Your task to perform on an android device: Open calendar and show me the fourth week of next month Image 0: 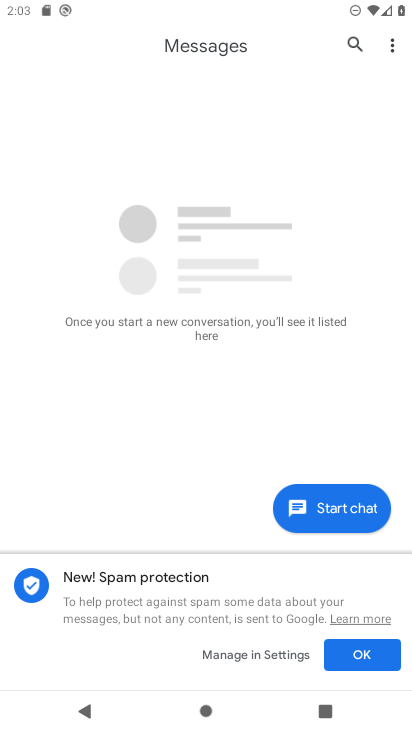
Step 0: drag from (268, 615) to (386, 547)
Your task to perform on an android device: Open calendar and show me the fourth week of next month Image 1: 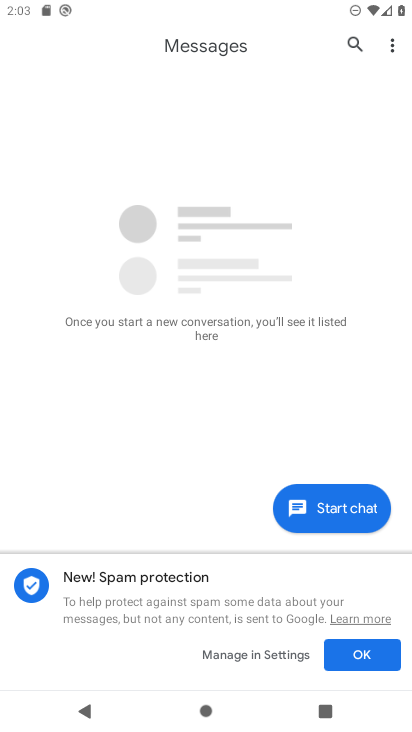
Step 1: press home button
Your task to perform on an android device: Open calendar and show me the fourth week of next month Image 2: 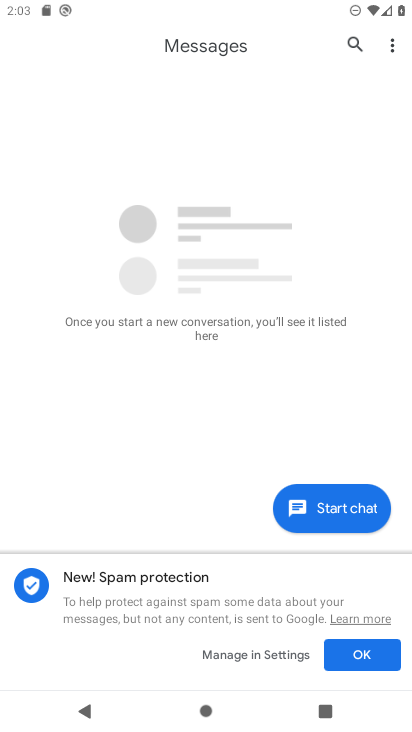
Step 2: drag from (386, 547) to (342, 299)
Your task to perform on an android device: Open calendar and show me the fourth week of next month Image 3: 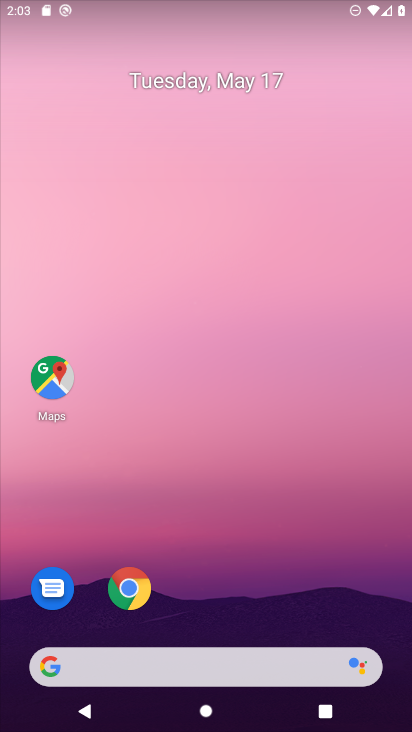
Step 3: drag from (178, 589) to (110, 87)
Your task to perform on an android device: Open calendar and show me the fourth week of next month Image 4: 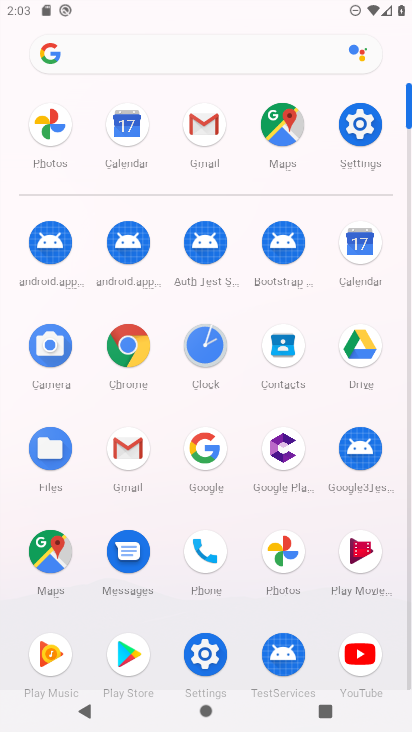
Step 4: click (358, 244)
Your task to perform on an android device: Open calendar and show me the fourth week of next month Image 5: 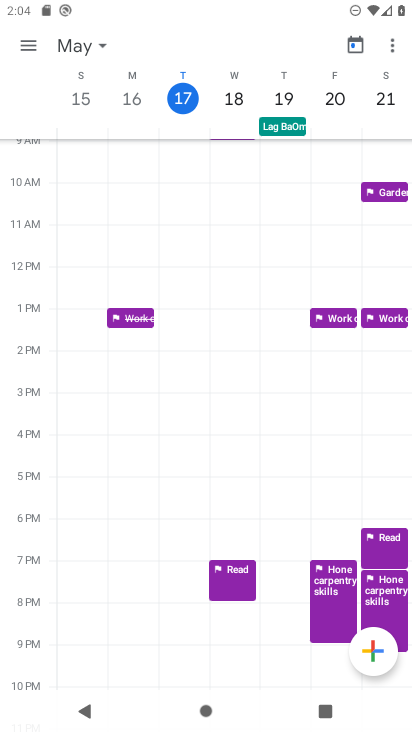
Step 5: click (70, 53)
Your task to perform on an android device: Open calendar and show me the fourth week of next month Image 6: 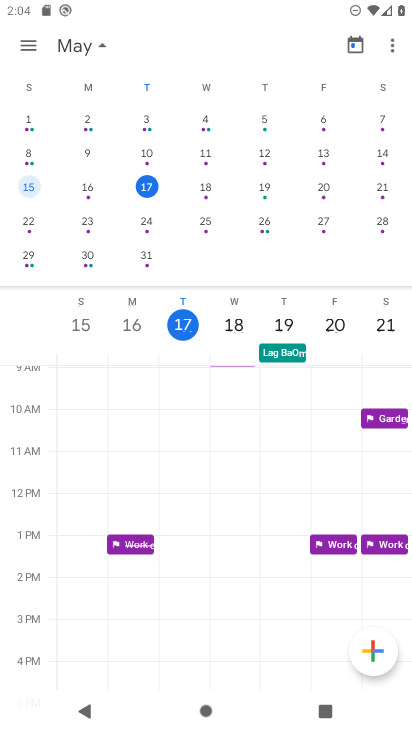
Step 6: drag from (386, 189) to (27, 212)
Your task to perform on an android device: Open calendar and show me the fourth week of next month Image 7: 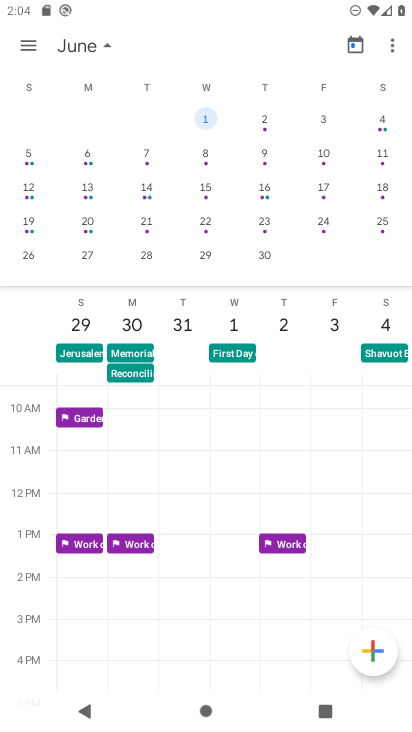
Step 7: click (29, 221)
Your task to perform on an android device: Open calendar and show me the fourth week of next month Image 8: 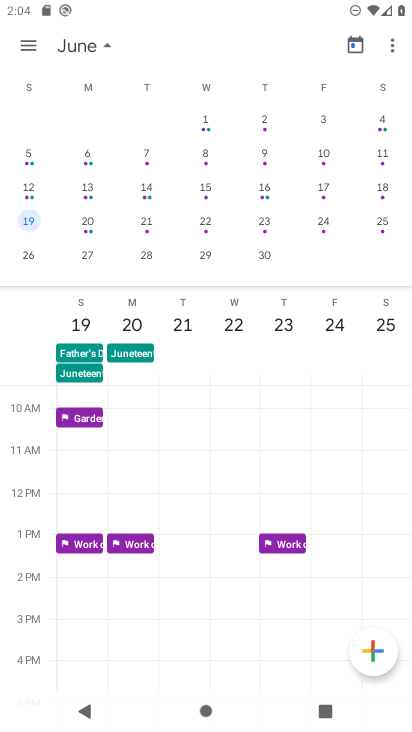
Step 8: click (88, 47)
Your task to perform on an android device: Open calendar and show me the fourth week of next month Image 9: 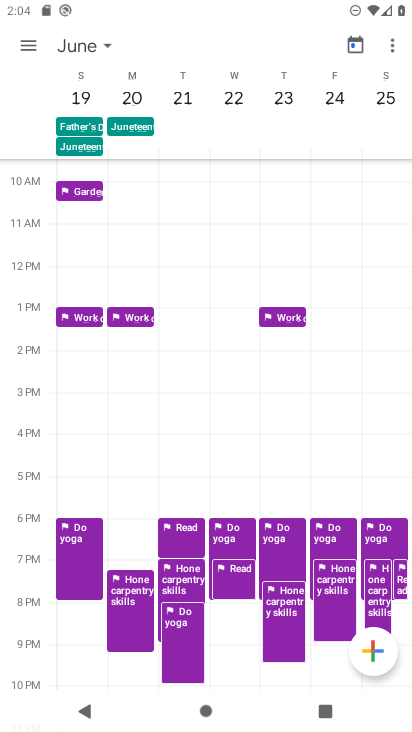
Step 9: task complete